Your task to perform on an android device: What's the weather going to be tomorrow? Image 0: 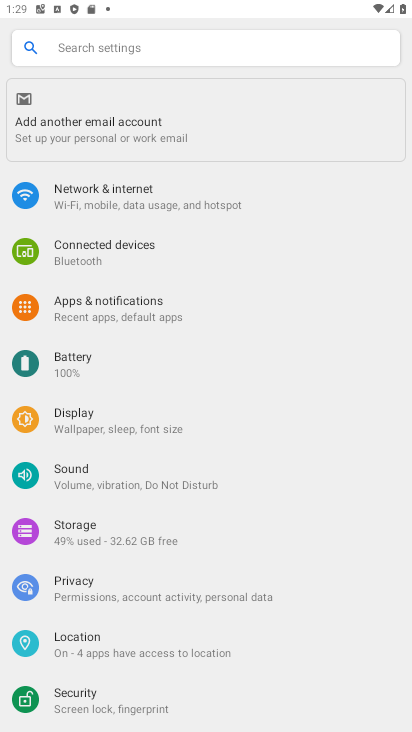
Step 0: press home button
Your task to perform on an android device: What's the weather going to be tomorrow? Image 1: 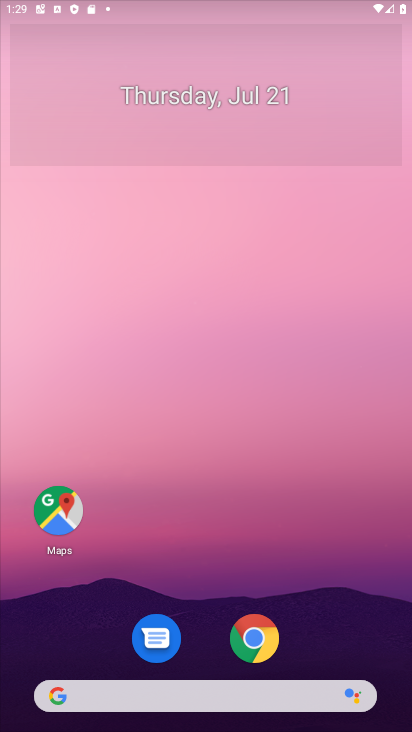
Step 1: click (149, 695)
Your task to perform on an android device: What's the weather going to be tomorrow? Image 2: 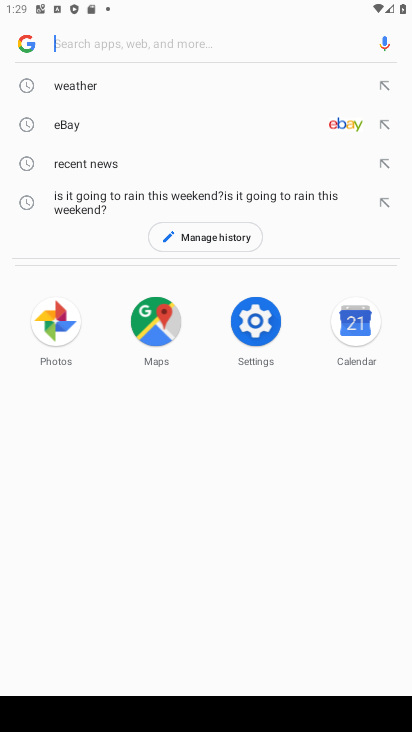
Step 2: type "What's the weather going to be tomorrow?"
Your task to perform on an android device: What's the weather going to be tomorrow? Image 3: 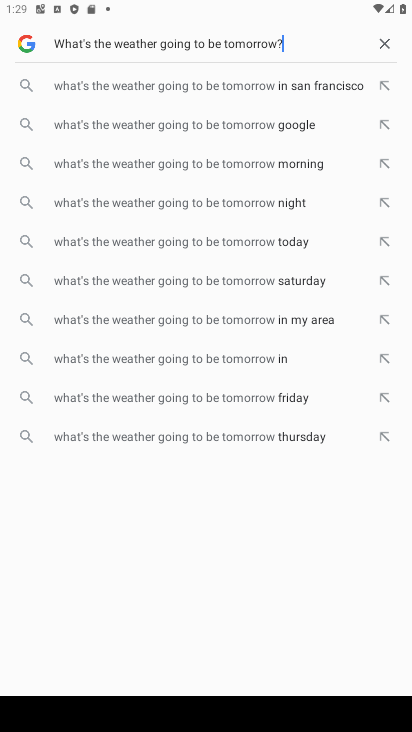
Step 3: press enter
Your task to perform on an android device: What's the weather going to be tomorrow? Image 4: 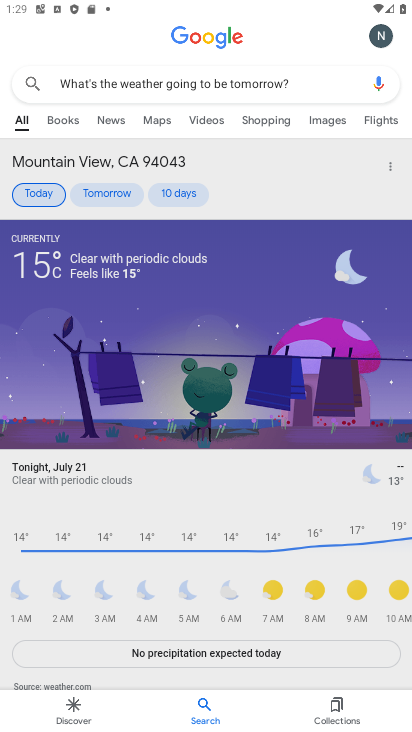
Step 4: click (104, 204)
Your task to perform on an android device: What's the weather going to be tomorrow? Image 5: 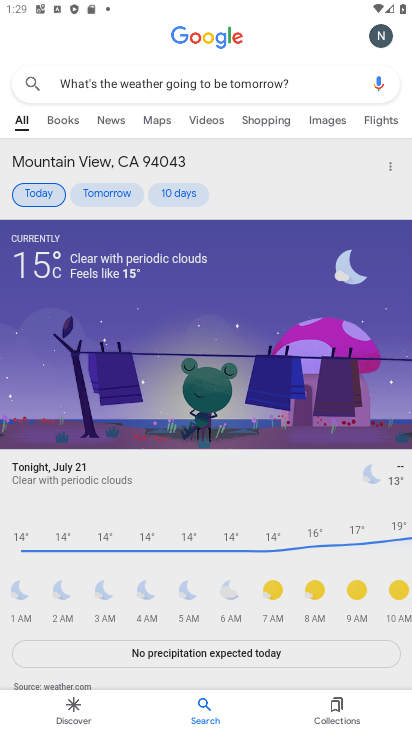
Step 5: click (105, 200)
Your task to perform on an android device: What's the weather going to be tomorrow? Image 6: 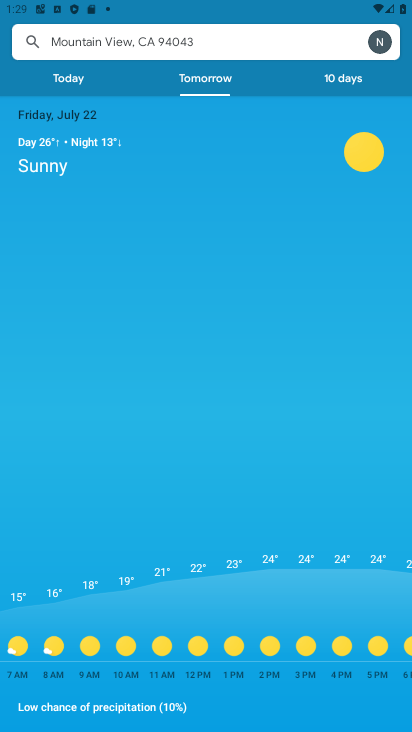
Step 6: task complete